Your task to perform on an android device: Go to Amazon Image 0: 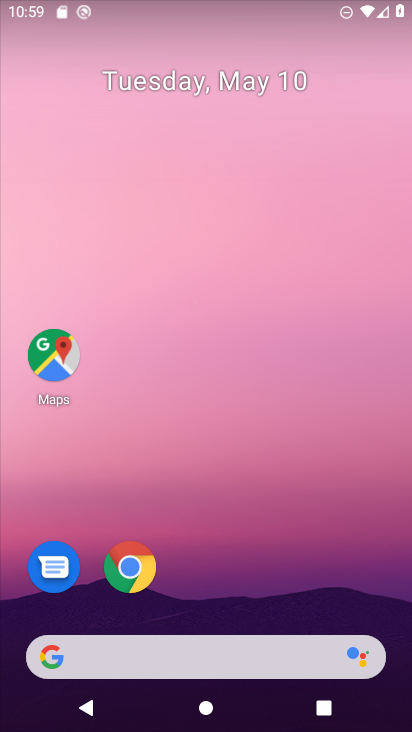
Step 0: click (137, 570)
Your task to perform on an android device: Go to Amazon Image 1: 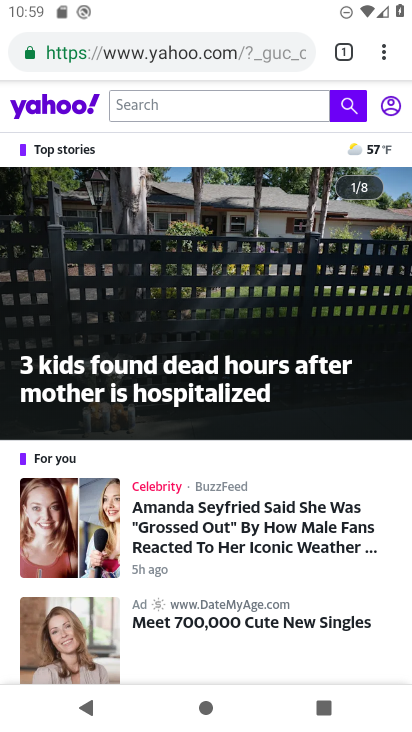
Step 1: click (176, 58)
Your task to perform on an android device: Go to Amazon Image 2: 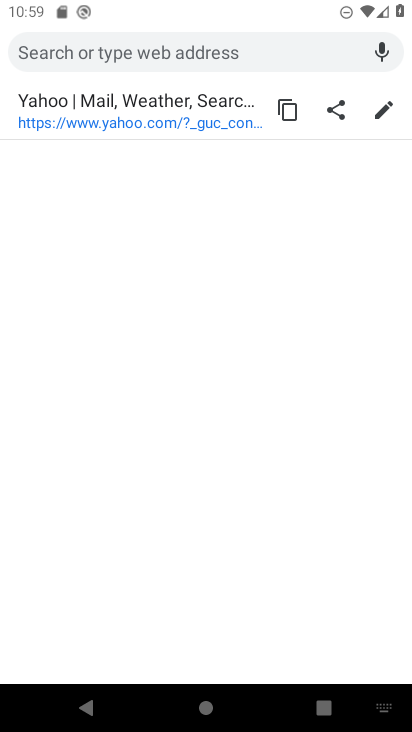
Step 2: type "Amazon"
Your task to perform on an android device: Go to Amazon Image 3: 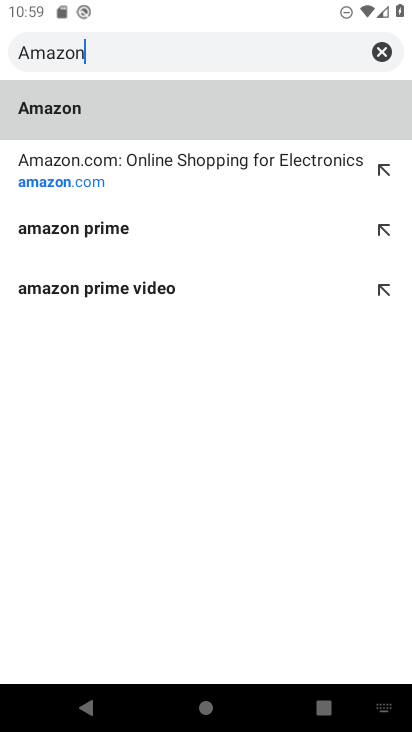
Step 3: click (61, 178)
Your task to perform on an android device: Go to Amazon Image 4: 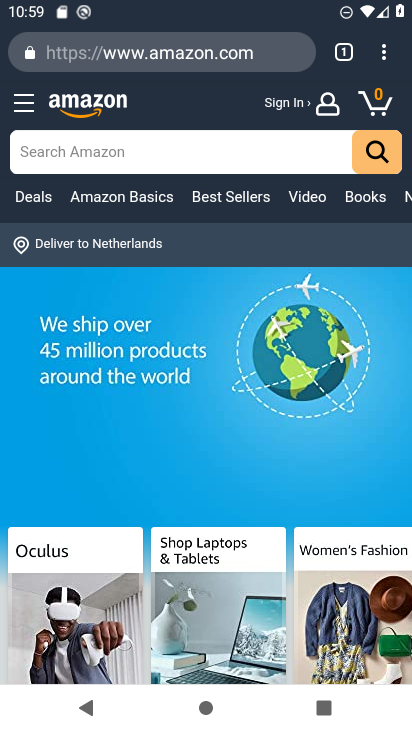
Step 4: task complete